Your task to perform on an android device: snooze an email in the gmail app Image 0: 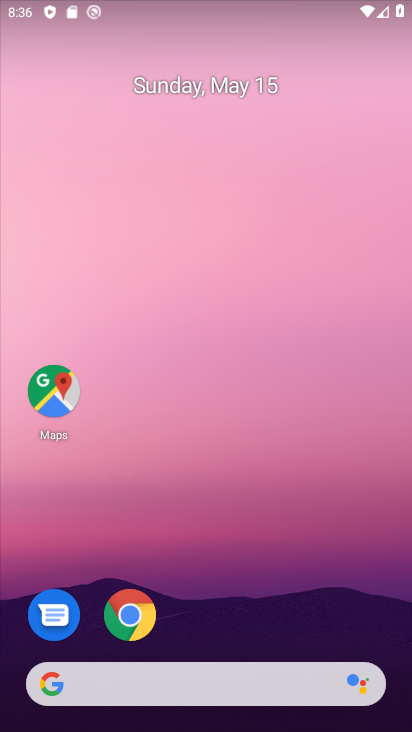
Step 0: drag from (256, 462) to (253, 28)
Your task to perform on an android device: snooze an email in the gmail app Image 1: 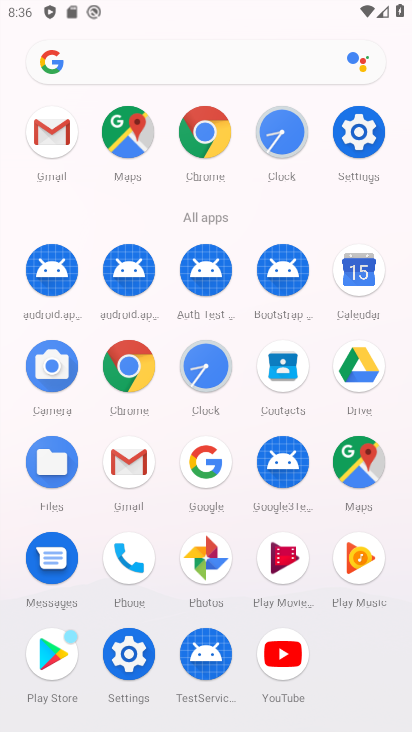
Step 1: click (122, 455)
Your task to perform on an android device: snooze an email in the gmail app Image 2: 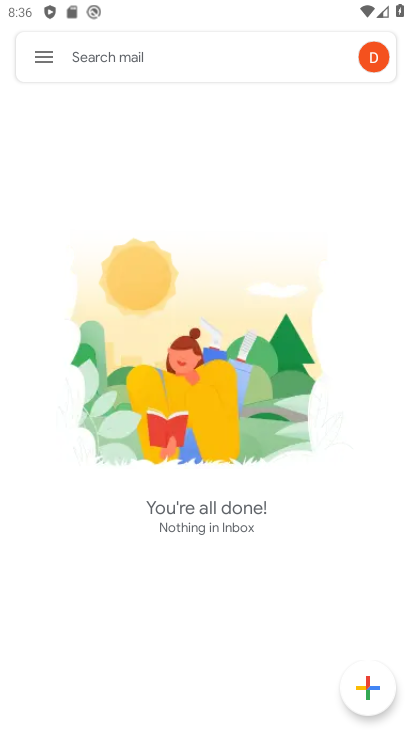
Step 2: click (43, 60)
Your task to perform on an android device: snooze an email in the gmail app Image 3: 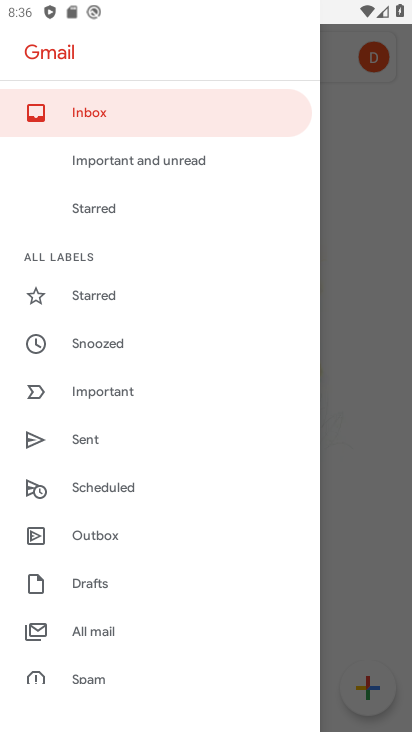
Step 3: click (132, 629)
Your task to perform on an android device: snooze an email in the gmail app Image 4: 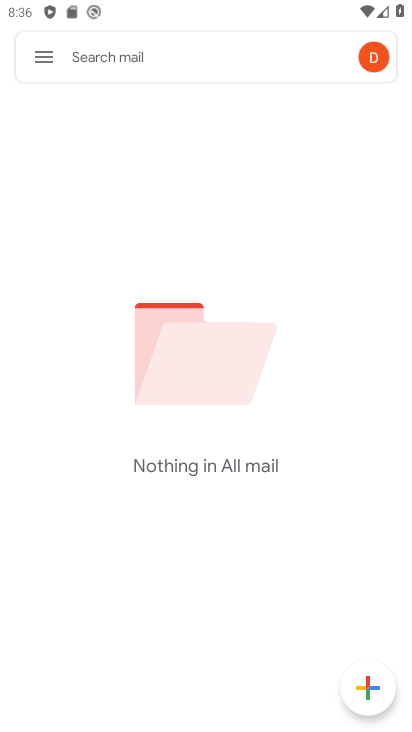
Step 4: task complete